Your task to perform on an android device: add a contact Image 0: 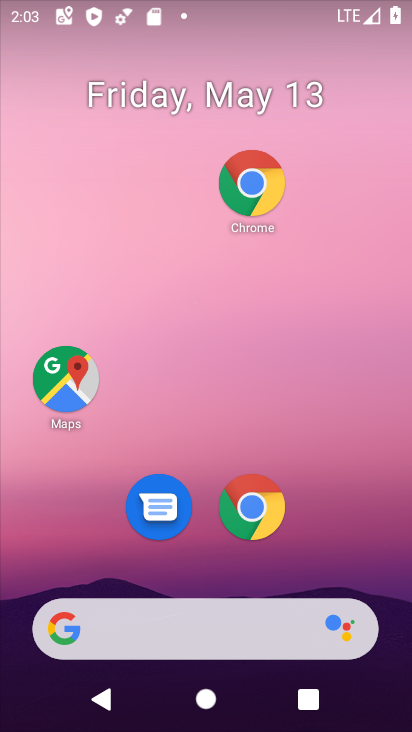
Step 0: drag from (226, 701) to (270, 51)
Your task to perform on an android device: add a contact Image 1: 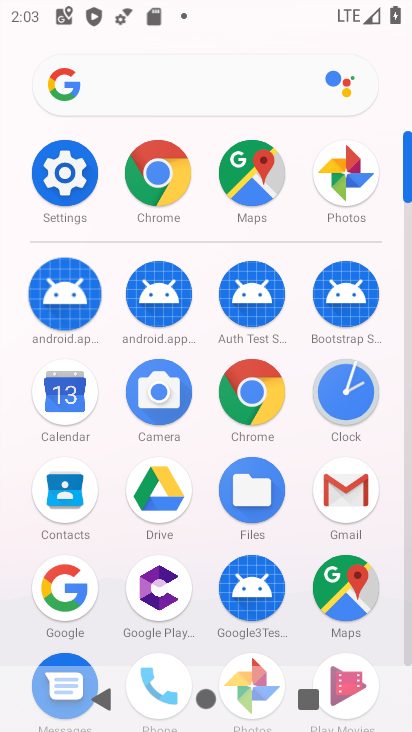
Step 1: click (46, 496)
Your task to perform on an android device: add a contact Image 2: 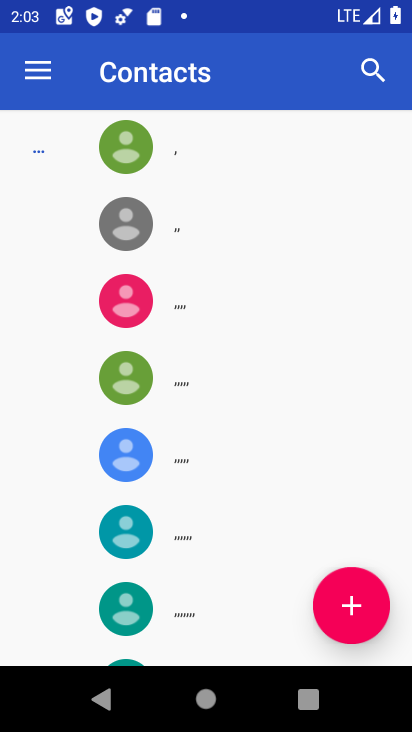
Step 2: click (356, 622)
Your task to perform on an android device: add a contact Image 3: 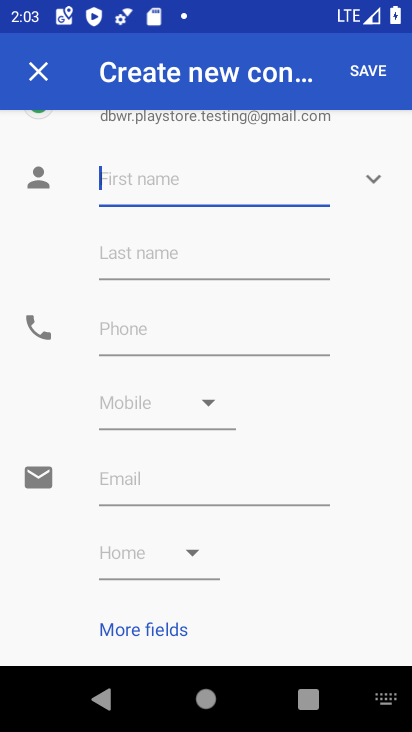
Step 3: type "fgdhgfhghg"
Your task to perform on an android device: add a contact Image 4: 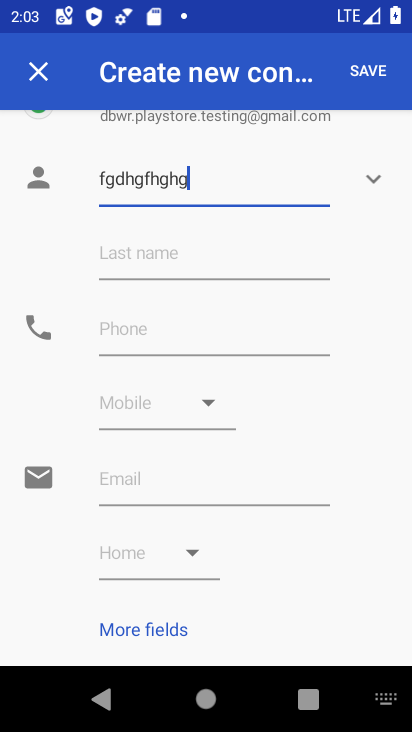
Step 4: click (122, 348)
Your task to perform on an android device: add a contact Image 5: 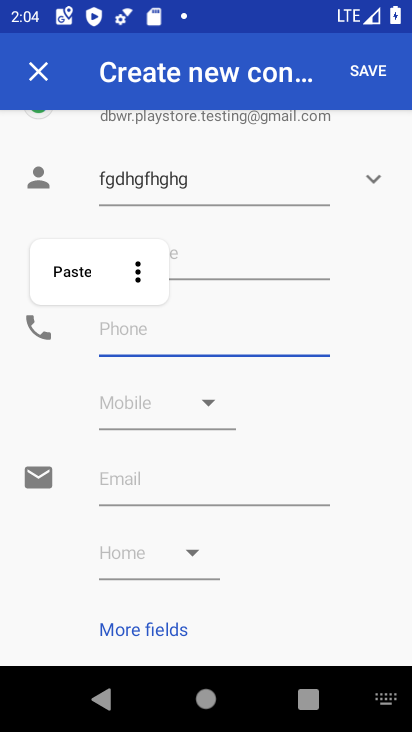
Step 5: type "7887979898"
Your task to perform on an android device: add a contact Image 6: 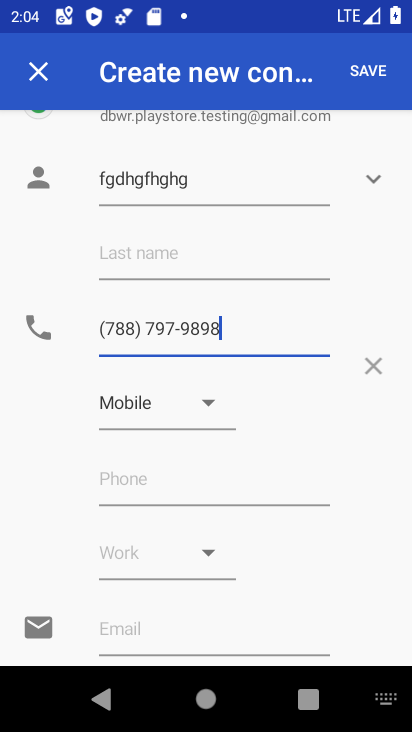
Step 6: click (365, 63)
Your task to perform on an android device: add a contact Image 7: 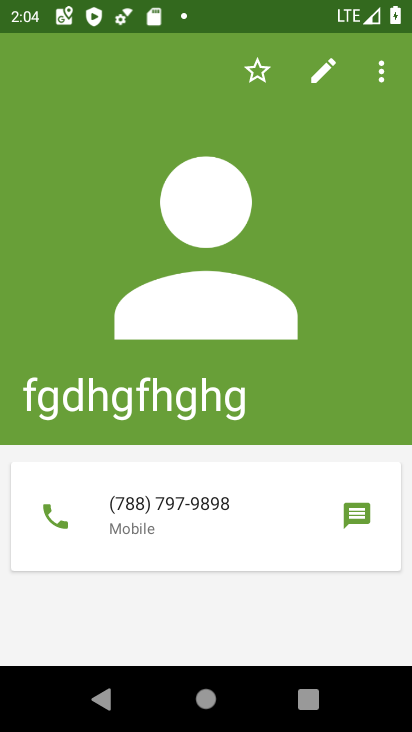
Step 7: task complete